Your task to perform on an android device: Open ESPN.com Image 0: 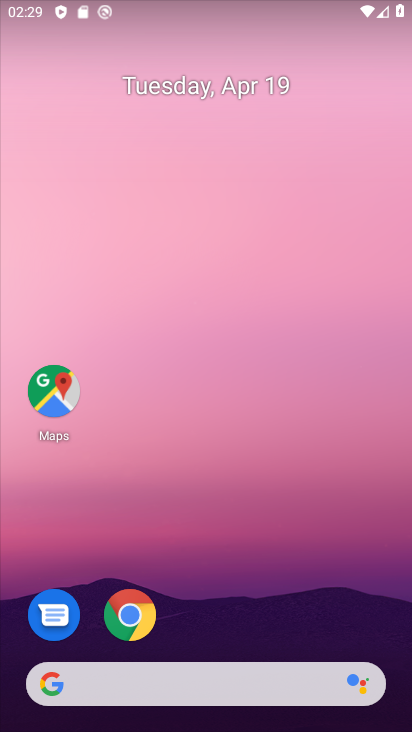
Step 0: drag from (217, 632) to (270, 143)
Your task to perform on an android device: Open ESPN.com Image 1: 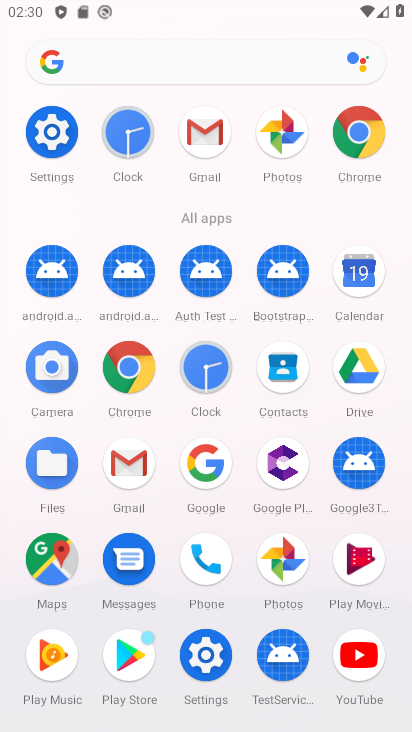
Step 1: click (125, 357)
Your task to perform on an android device: Open ESPN.com Image 2: 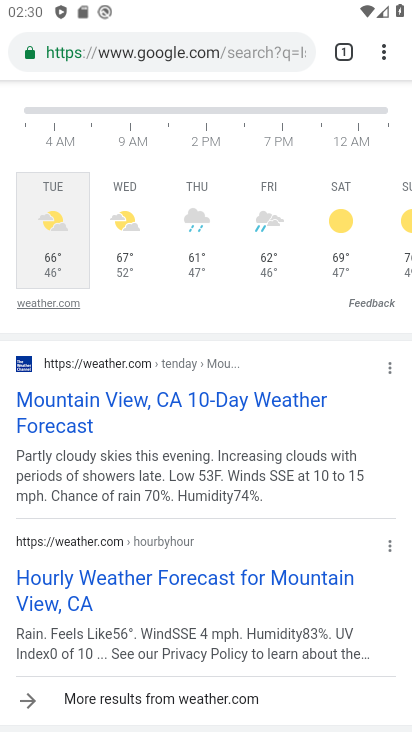
Step 2: click (381, 42)
Your task to perform on an android device: Open ESPN.com Image 3: 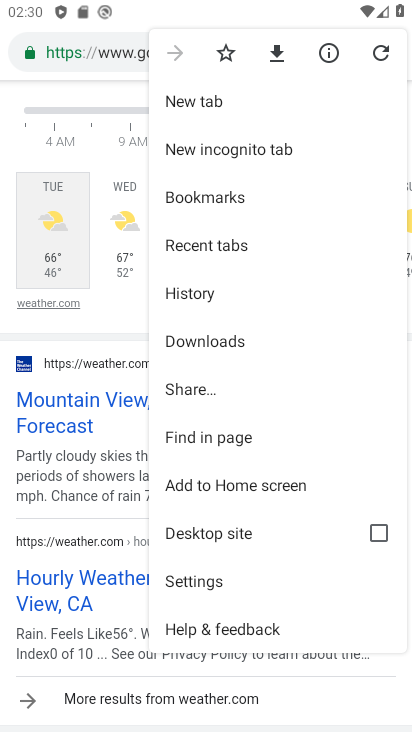
Step 3: click (263, 99)
Your task to perform on an android device: Open ESPN.com Image 4: 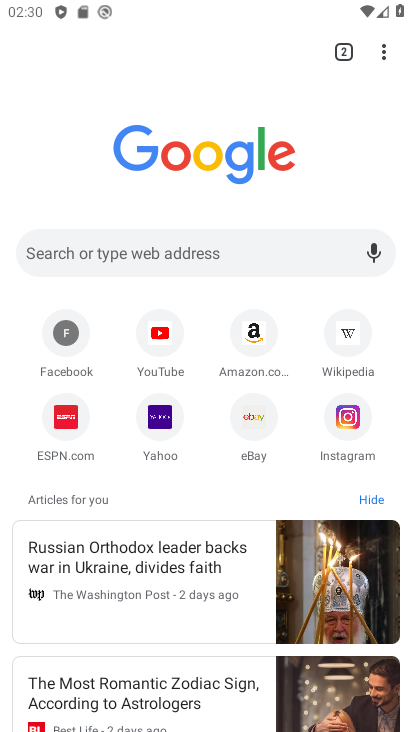
Step 4: click (58, 435)
Your task to perform on an android device: Open ESPN.com Image 5: 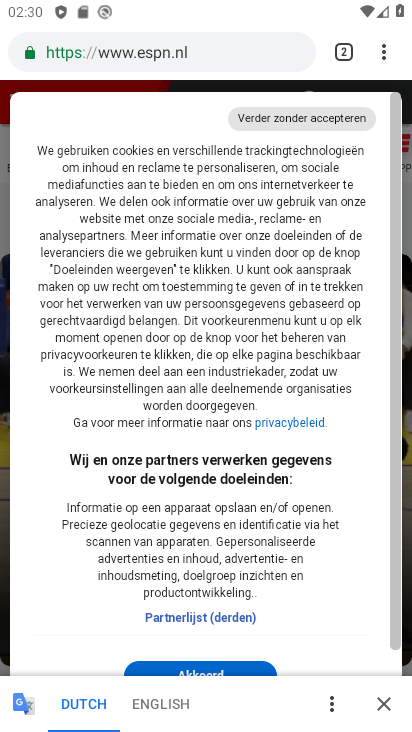
Step 5: task complete